Your task to perform on an android device: See recent photos Image 0: 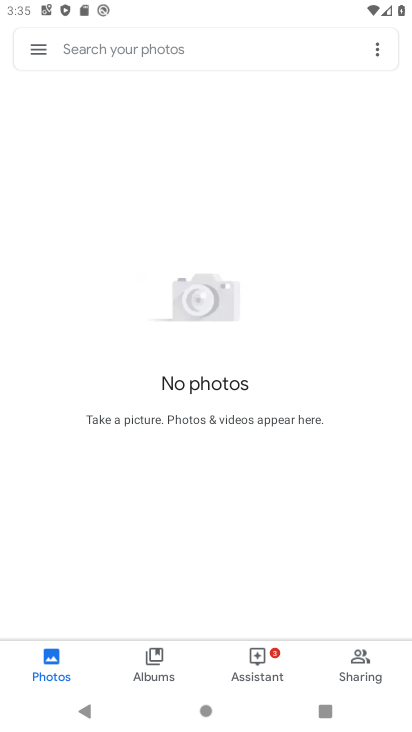
Step 0: press home button
Your task to perform on an android device: See recent photos Image 1: 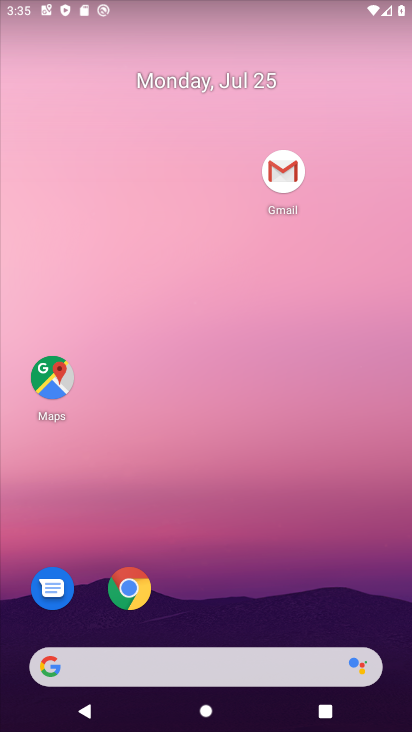
Step 1: drag from (312, 542) to (290, 51)
Your task to perform on an android device: See recent photos Image 2: 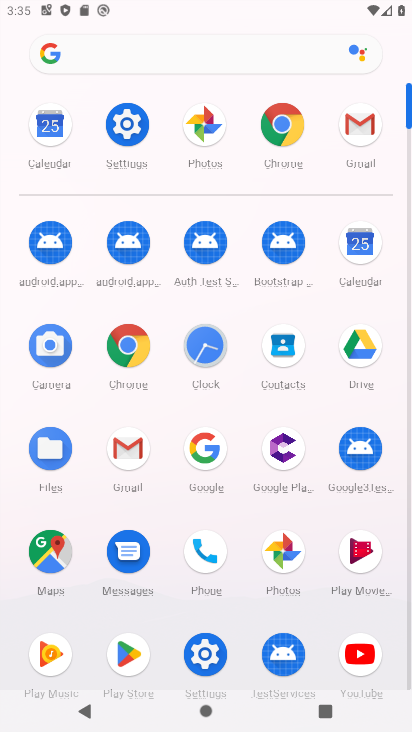
Step 2: click (283, 545)
Your task to perform on an android device: See recent photos Image 3: 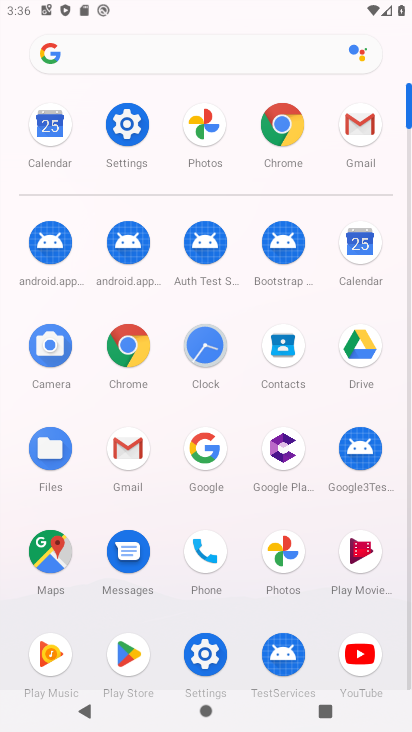
Step 3: click (281, 561)
Your task to perform on an android device: See recent photos Image 4: 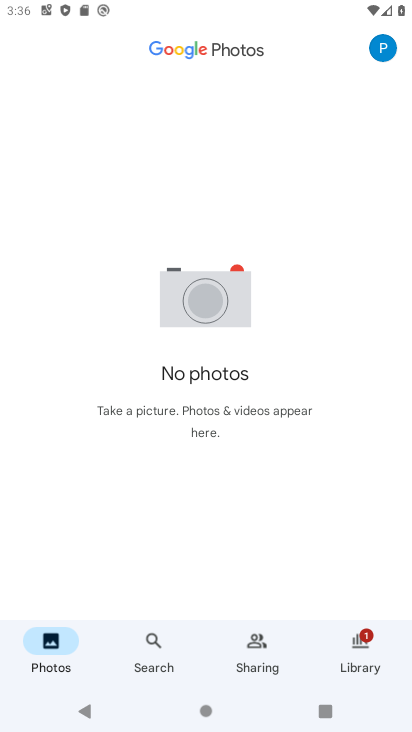
Step 4: task complete